Your task to perform on an android device: find which apps use the phone's location Image 0: 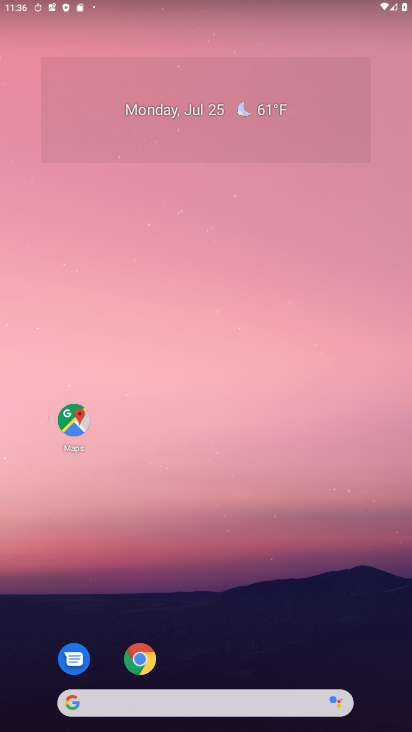
Step 0: drag from (59, 635) to (156, 159)
Your task to perform on an android device: find which apps use the phone's location Image 1: 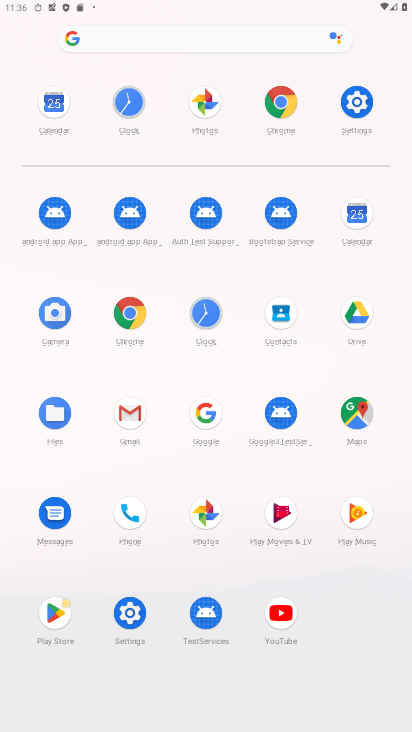
Step 1: click (116, 630)
Your task to perform on an android device: find which apps use the phone's location Image 2: 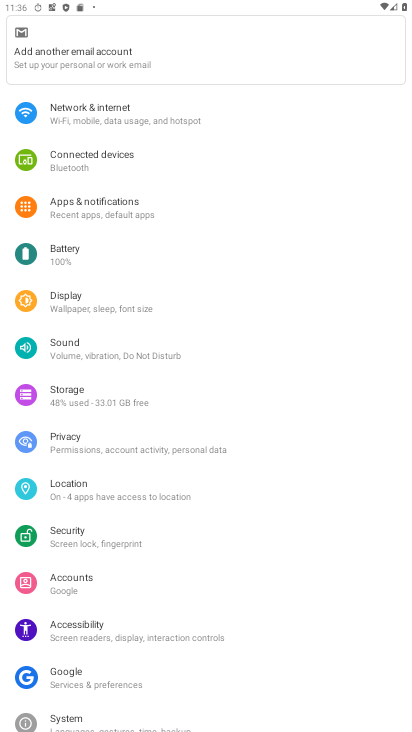
Step 2: click (83, 217)
Your task to perform on an android device: find which apps use the phone's location Image 3: 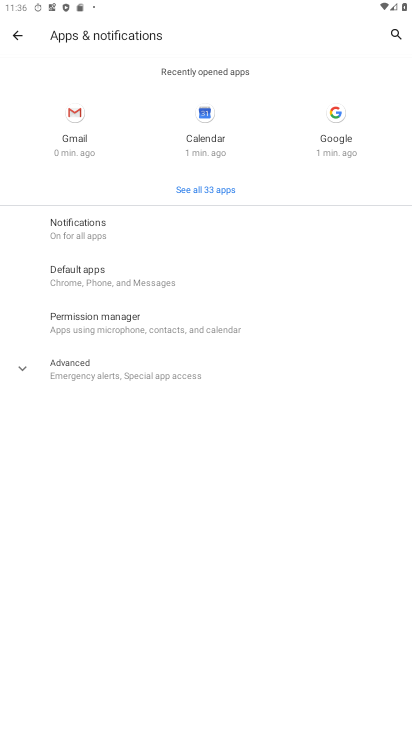
Step 3: click (66, 326)
Your task to perform on an android device: find which apps use the phone's location Image 4: 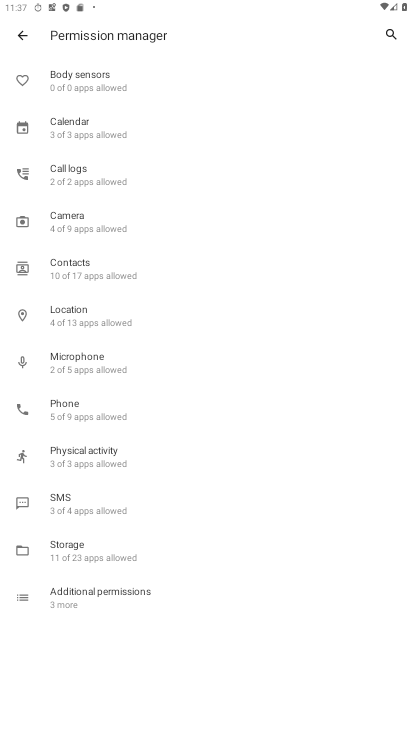
Step 4: task complete